Your task to perform on an android device: Set the phone to "Do not disturb". Image 0: 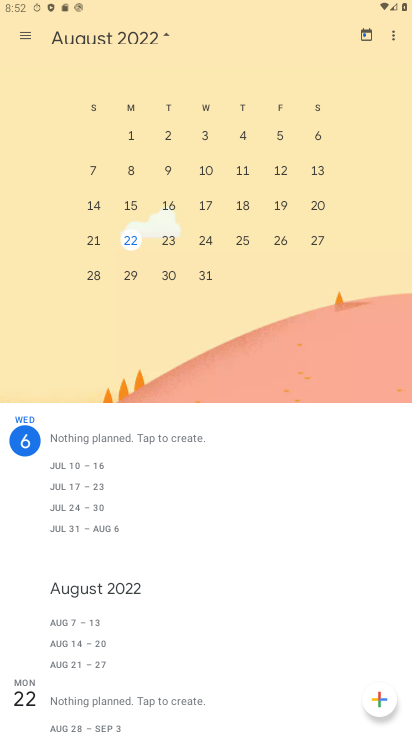
Step 0: press home button
Your task to perform on an android device: Set the phone to "Do not disturb". Image 1: 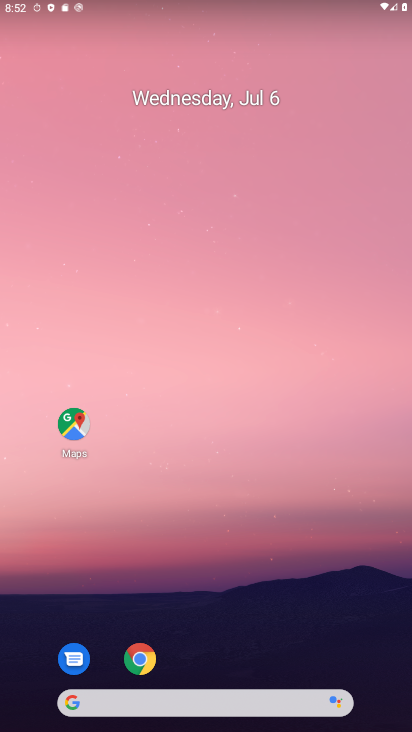
Step 1: drag from (343, 637) to (345, 146)
Your task to perform on an android device: Set the phone to "Do not disturb". Image 2: 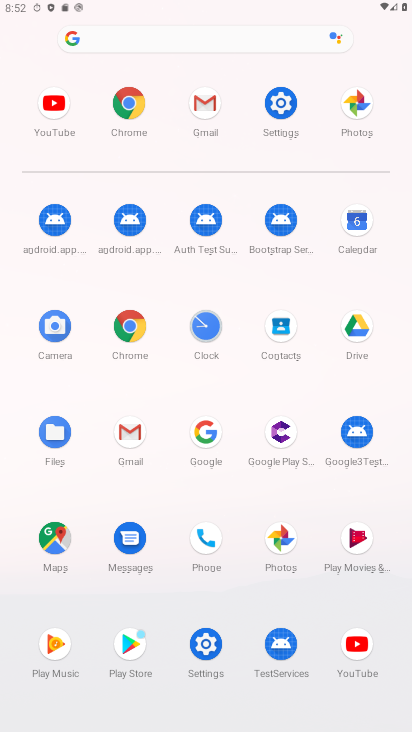
Step 2: click (212, 654)
Your task to perform on an android device: Set the phone to "Do not disturb". Image 3: 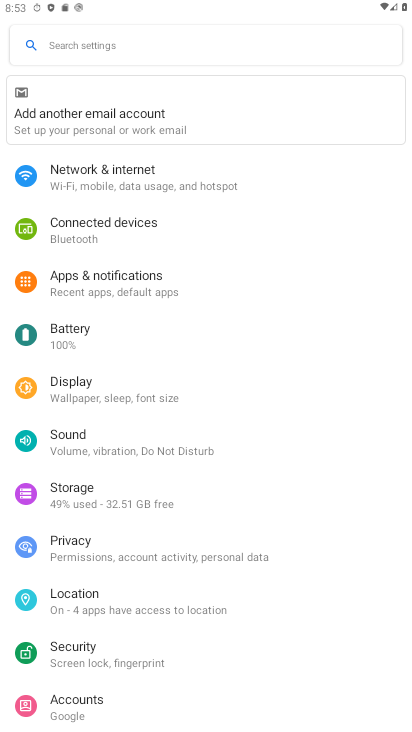
Step 3: drag from (317, 603) to (341, 510)
Your task to perform on an android device: Set the phone to "Do not disturb". Image 4: 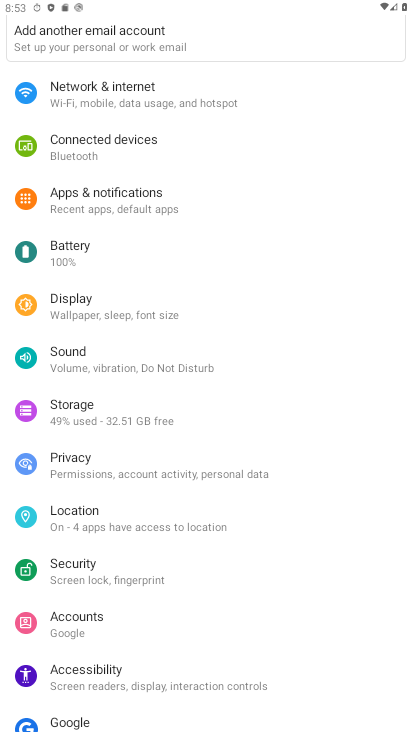
Step 4: drag from (345, 640) to (367, 497)
Your task to perform on an android device: Set the phone to "Do not disturb". Image 5: 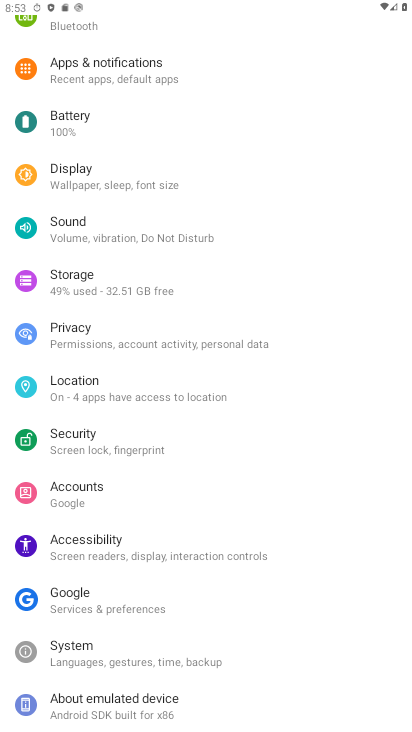
Step 5: drag from (336, 672) to (349, 463)
Your task to perform on an android device: Set the phone to "Do not disturb". Image 6: 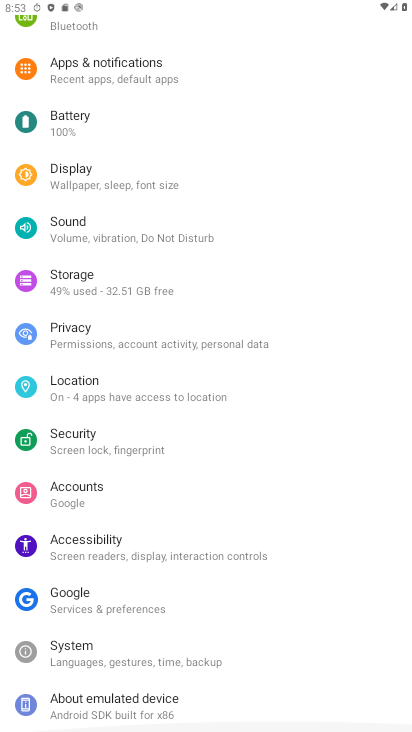
Step 6: drag from (358, 338) to (357, 447)
Your task to perform on an android device: Set the phone to "Do not disturb". Image 7: 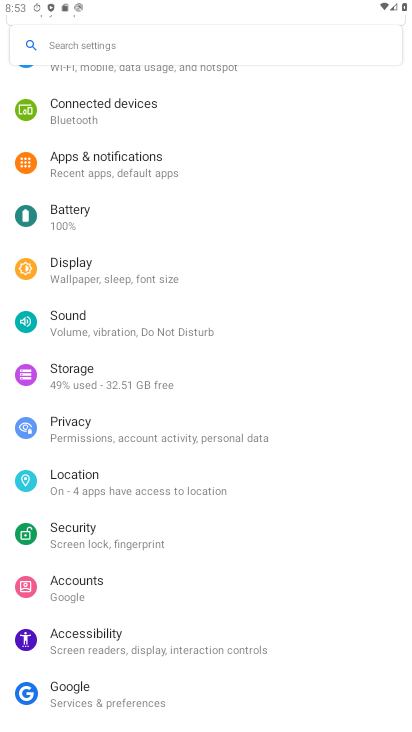
Step 7: drag from (355, 351) to (346, 509)
Your task to perform on an android device: Set the phone to "Do not disturb". Image 8: 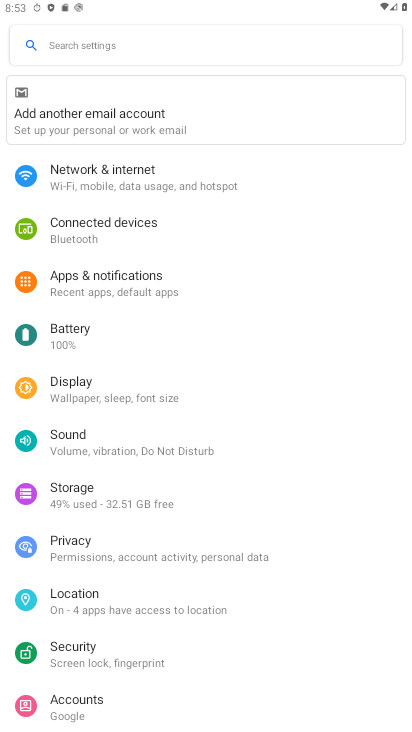
Step 8: click (240, 457)
Your task to perform on an android device: Set the phone to "Do not disturb". Image 9: 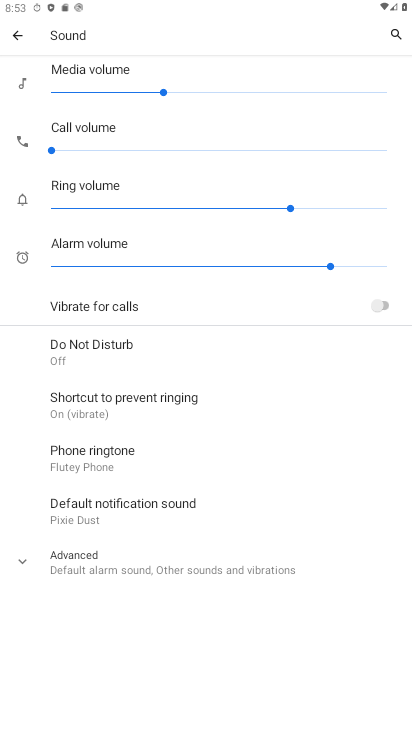
Step 9: click (122, 353)
Your task to perform on an android device: Set the phone to "Do not disturb". Image 10: 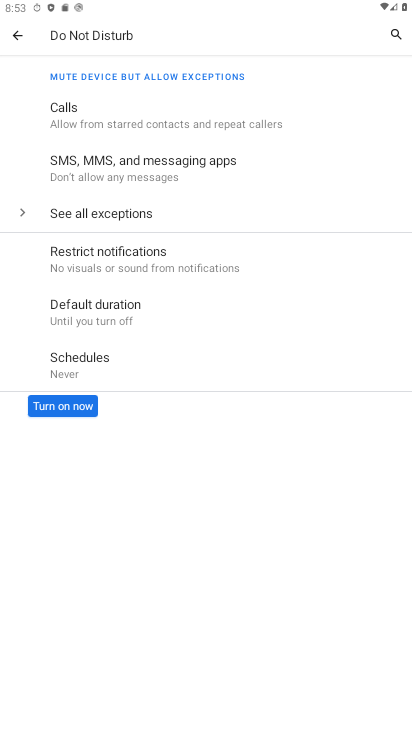
Step 10: click (80, 409)
Your task to perform on an android device: Set the phone to "Do not disturb". Image 11: 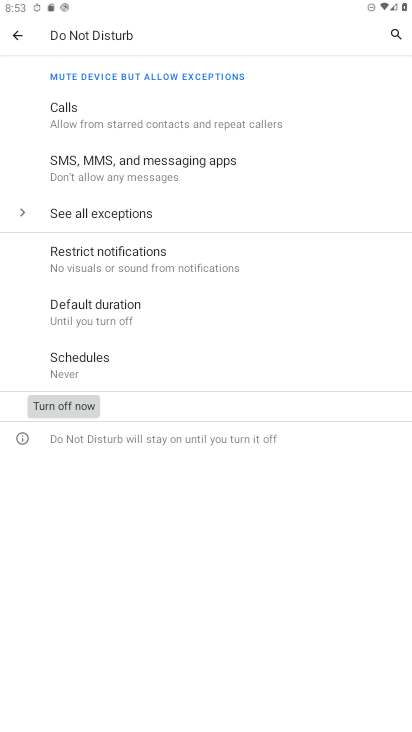
Step 11: task complete